Your task to perform on an android device: Open Google Maps Image 0: 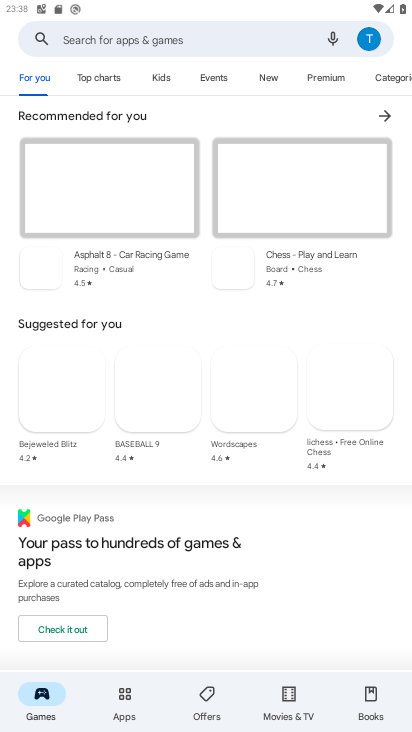
Step 0: press home button
Your task to perform on an android device: Open Google Maps Image 1: 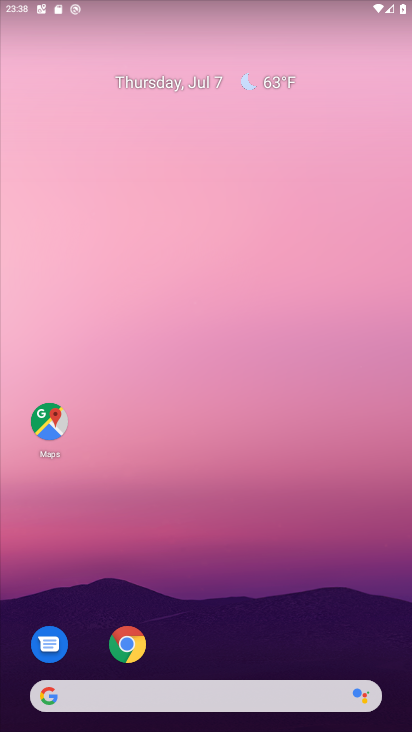
Step 1: drag from (207, 711) to (203, 238)
Your task to perform on an android device: Open Google Maps Image 2: 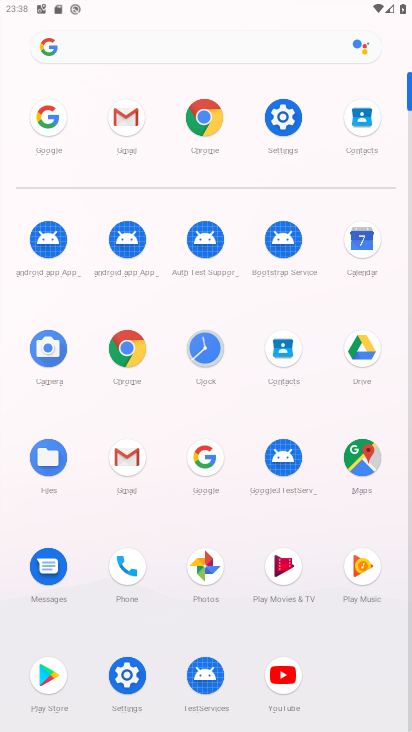
Step 2: click (360, 454)
Your task to perform on an android device: Open Google Maps Image 3: 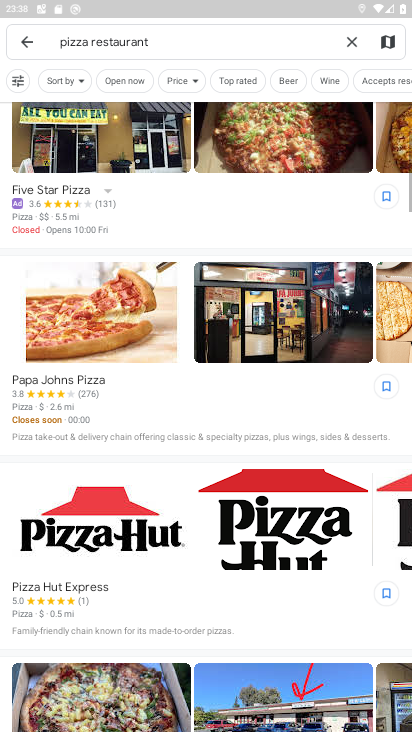
Step 3: task complete